Your task to perform on an android device: open wifi settings Image 0: 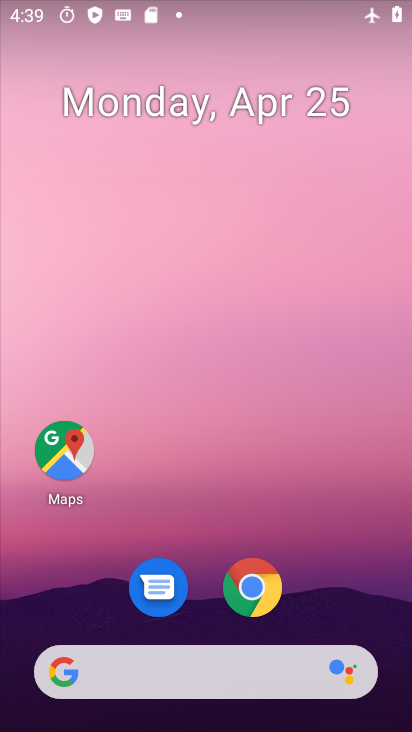
Step 0: drag from (330, 554) to (269, 0)
Your task to perform on an android device: open wifi settings Image 1: 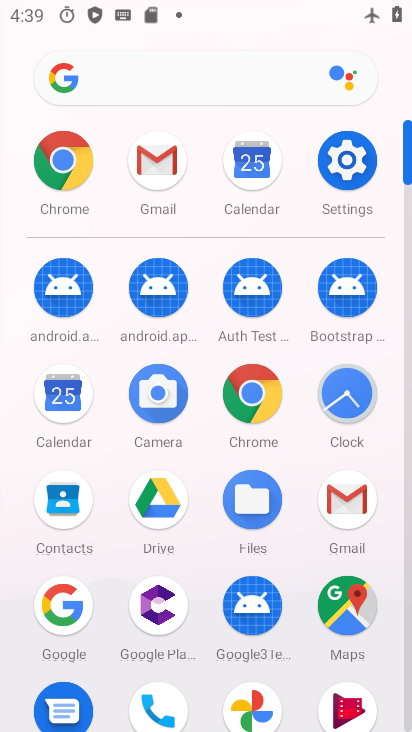
Step 1: click (339, 154)
Your task to perform on an android device: open wifi settings Image 2: 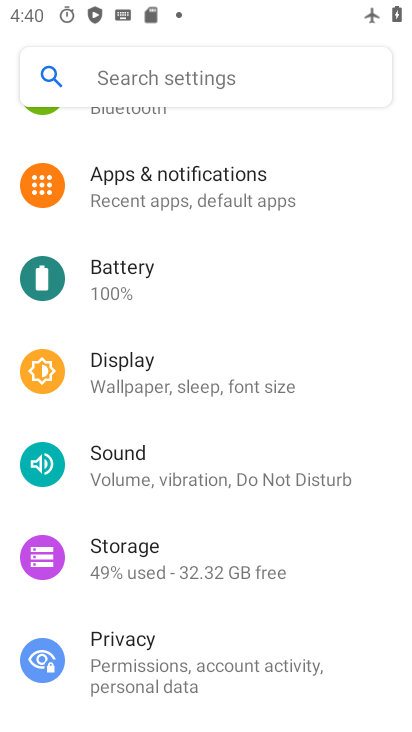
Step 2: drag from (262, 325) to (242, 595)
Your task to perform on an android device: open wifi settings Image 3: 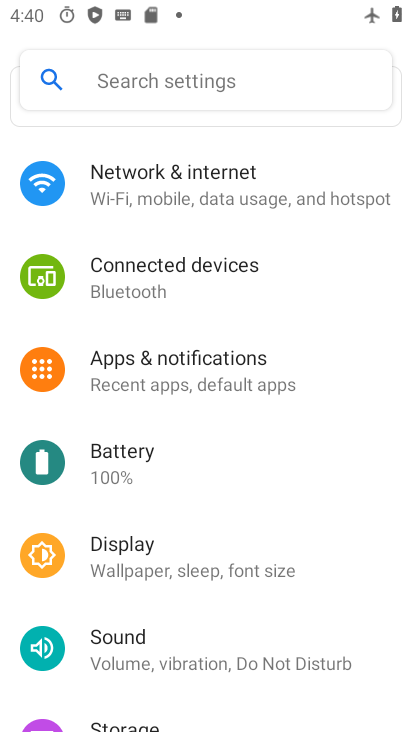
Step 3: click (249, 188)
Your task to perform on an android device: open wifi settings Image 4: 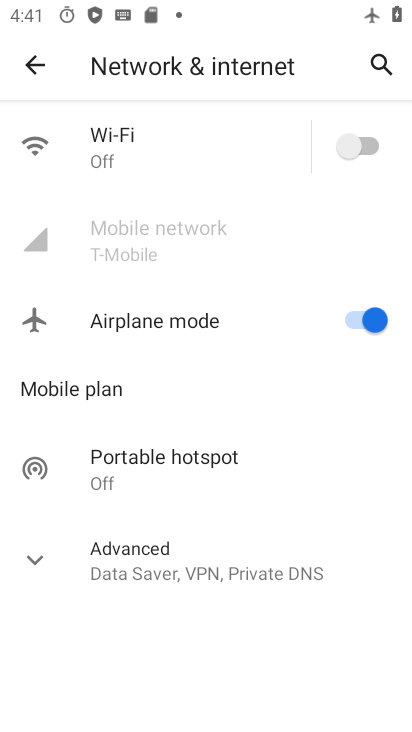
Step 4: click (239, 127)
Your task to perform on an android device: open wifi settings Image 5: 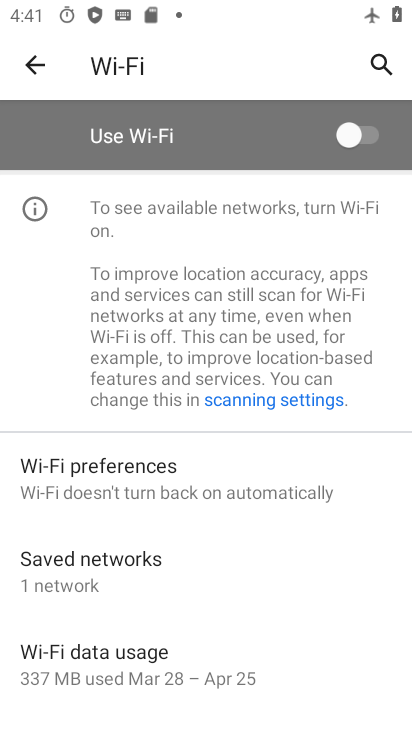
Step 5: click (296, 402)
Your task to perform on an android device: open wifi settings Image 6: 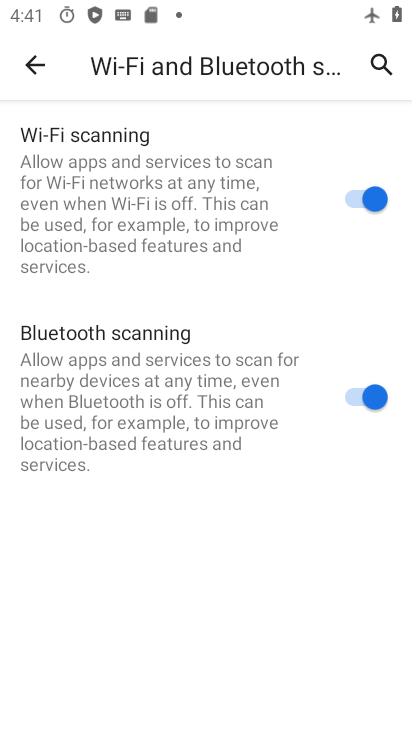
Step 6: click (35, 70)
Your task to perform on an android device: open wifi settings Image 7: 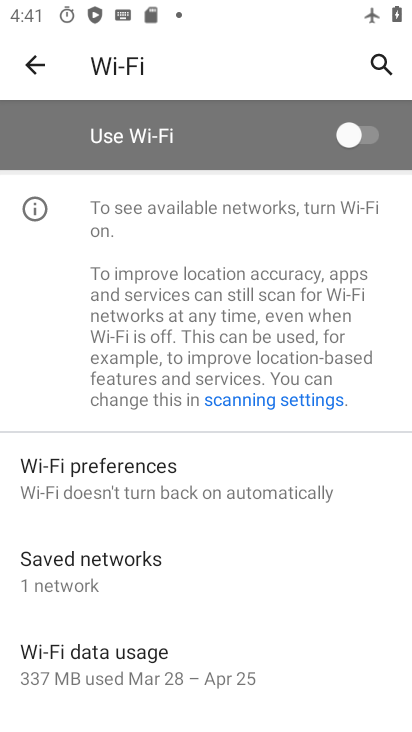
Step 7: task complete